Your task to perform on an android device: toggle priority inbox in the gmail app Image 0: 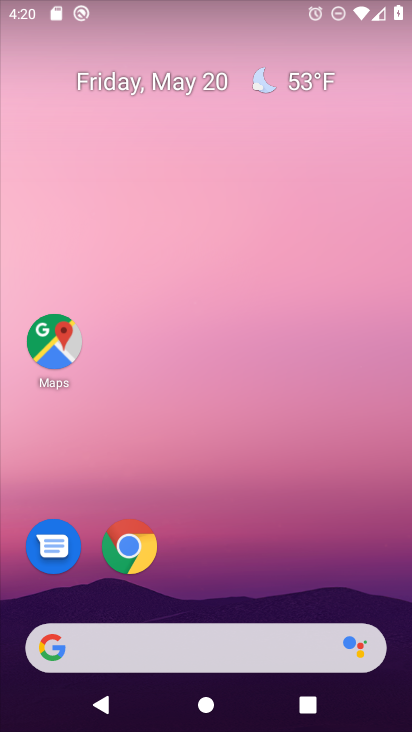
Step 0: drag from (262, 578) to (248, 198)
Your task to perform on an android device: toggle priority inbox in the gmail app Image 1: 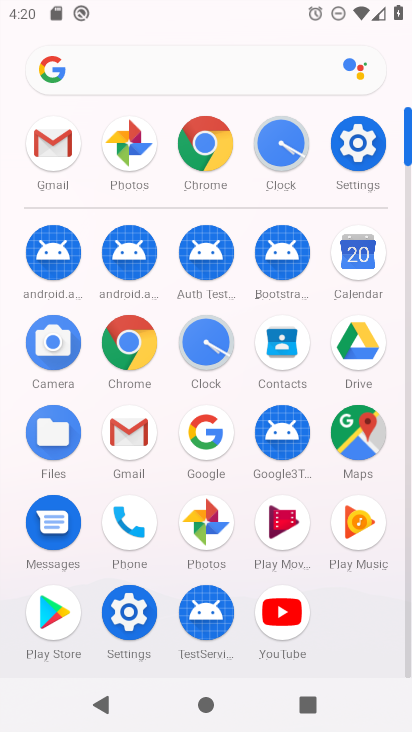
Step 1: click (67, 150)
Your task to perform on an android device: toggle priority inbox in the gmail app Image 2: 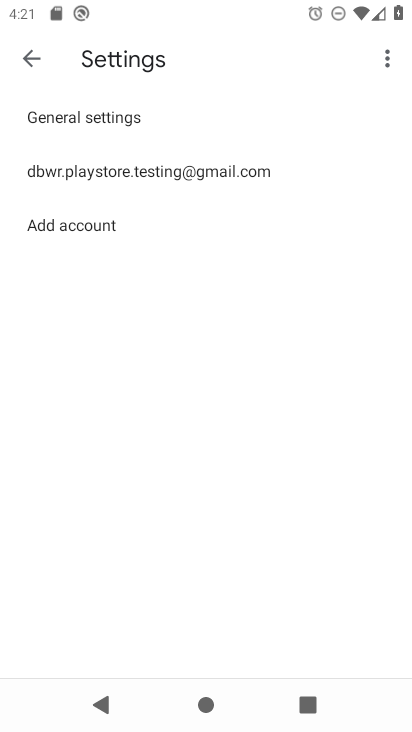
Step 2: click (258, 168)
Your task to perform on an android device: toggle priority inbox in the gmail app Image 3: 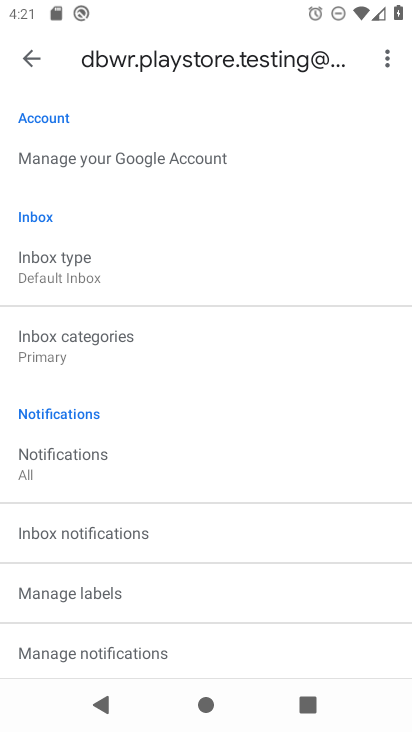
Step 3: click (103, 258)
Your task to perform on an android device: toggle priority inbox in the gmail app Image 4: 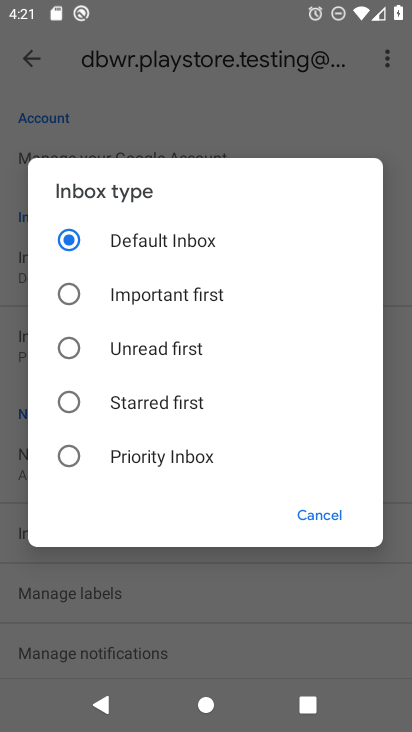
Step 4: click (139, 455)
Your task to perform on an android device: toggle priority inbox in the gmail app Image 5: 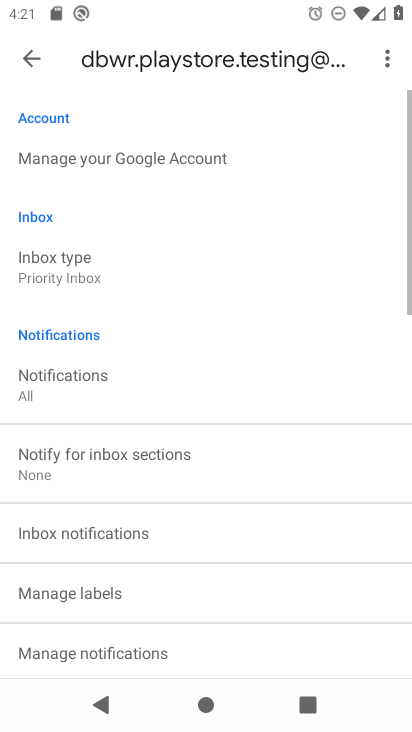
Step 5: task complete